Your task to perform on an android device: Open the map Image 0: 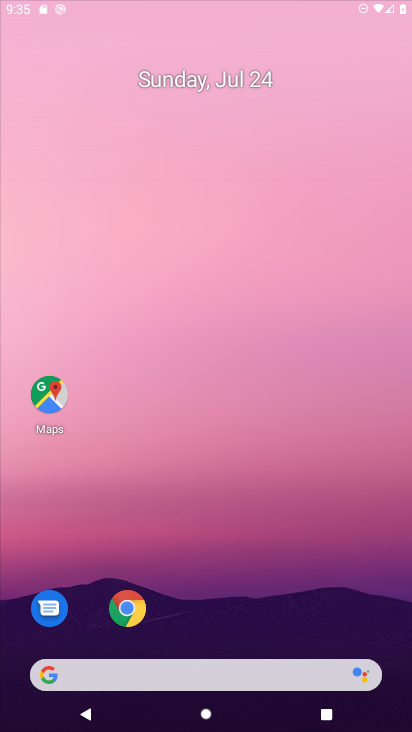
Step 0: drag from (173, 588) to (187, 202)
Your task to perform on an android device: Open the map Image 1: 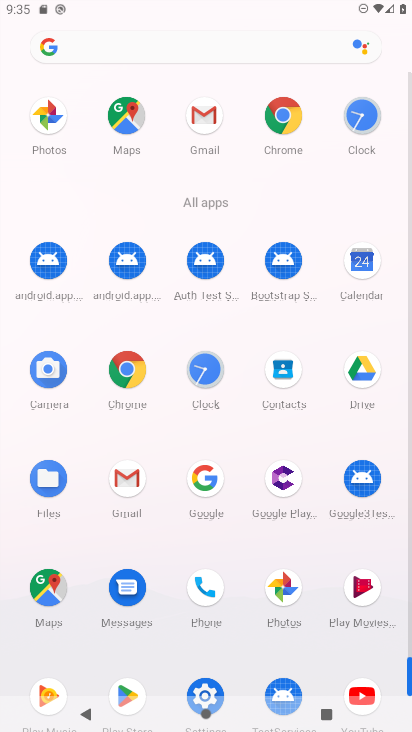
Step 1: click (46, 589)
Your task to perform on an android device: Open the map Image 2: 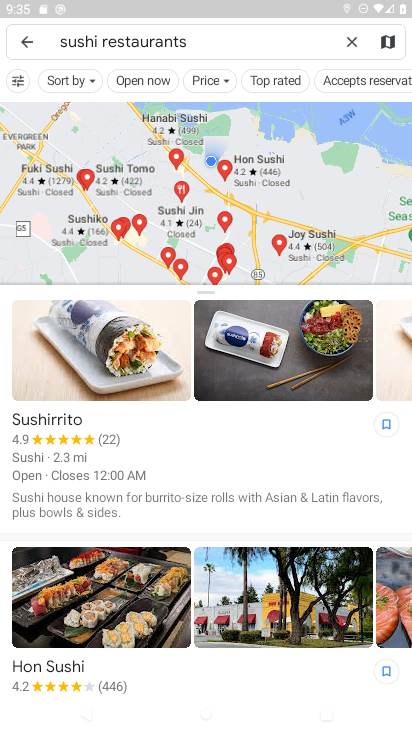
Step 2: task complete